Your task to perform on an android device: change the upload size in google photos Image 0: 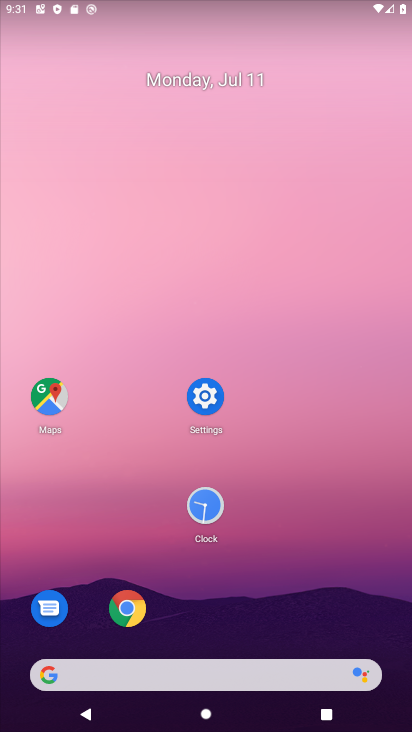
Step 0: drag from (393, 683) to (354, 112)
Your task to perform on an android device: change the upload size in google photos Image 1: 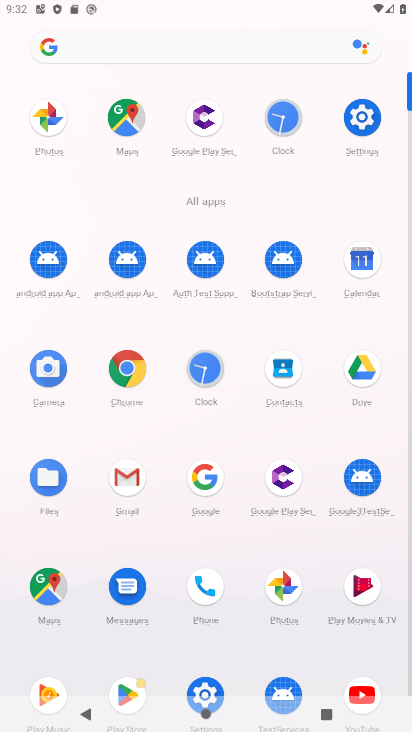
Step 1: click (272, 586)
Your task to perform on an android device: change the upload size in google photos Image 2: 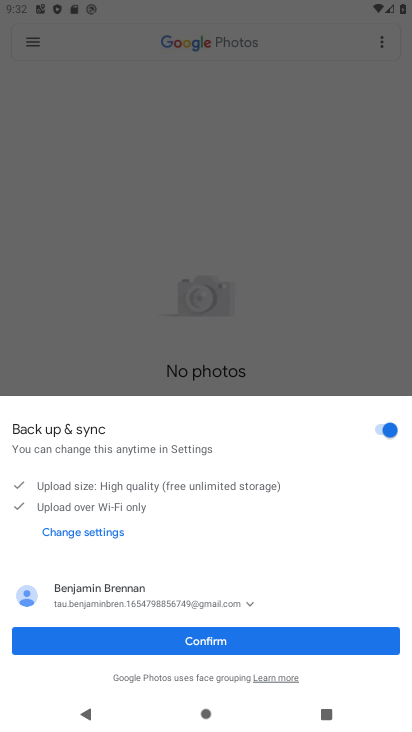
Step 2: click (103, 636)
Your task to perform on an android device: change the upload size in google photos Image 3: 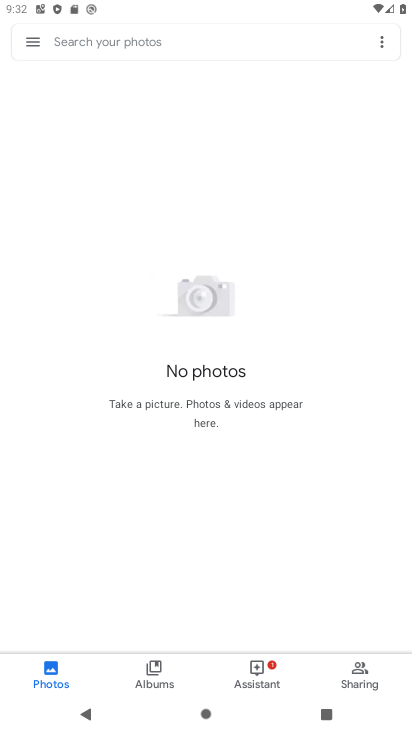
Step 3: click (42, 676)
Your task to perform on an android device: change the upload size in google photos Image 4: 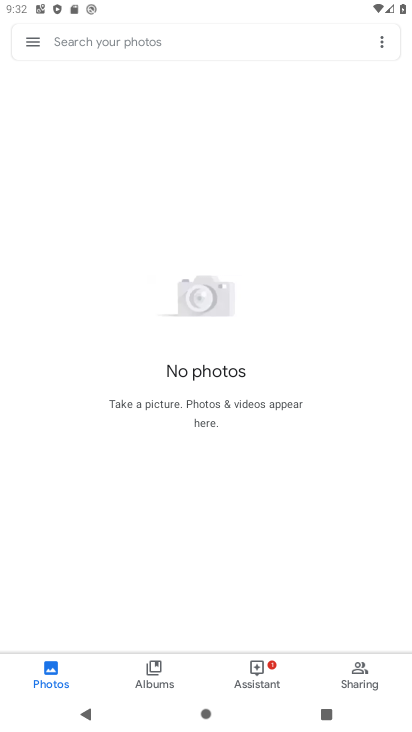
Step 4: click (29, 41)
Your task to perform on an android device: change the upload size in google photos Image 5: 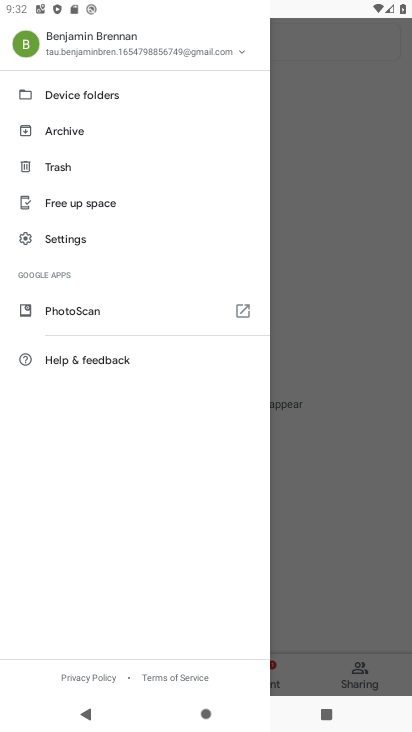
Step 5: click (59, 231)
Your task to perform on an android device: change the upload size in google photos Image 6: 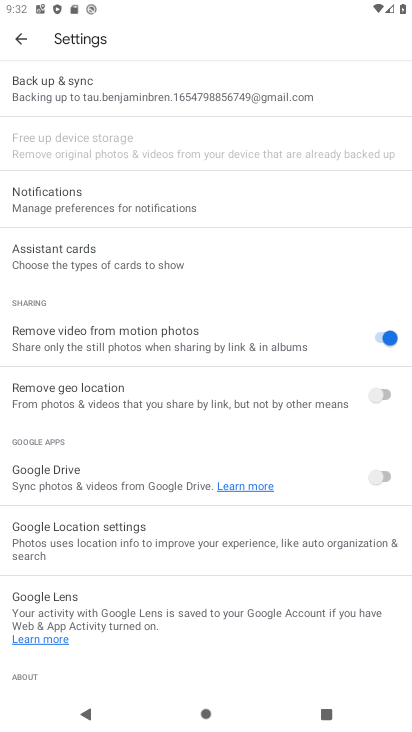
Step 6: click (83, 80)
Your task to perform on an android device: change the upload size in google photos Image 7: 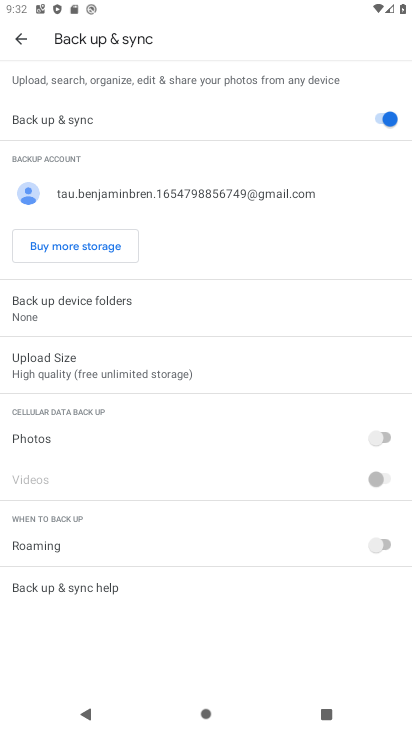
Step 7: click (57, 369)
Your task to perform on an android device: change the upload size in google photos Image 8: 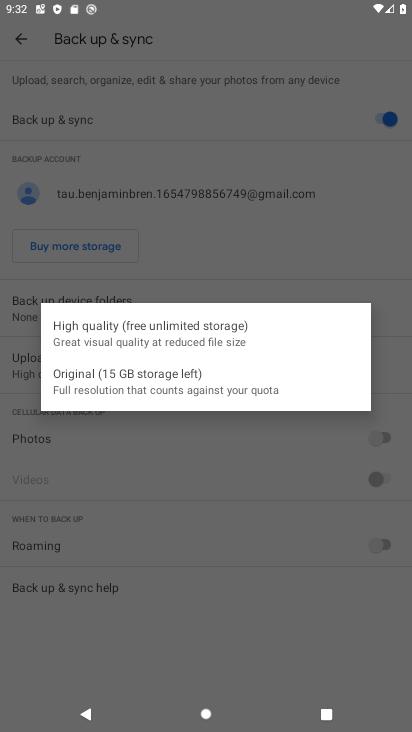
Step 8: click (97, 379)
Your task to perform on an android device: change the upload size in google photos Image 9: 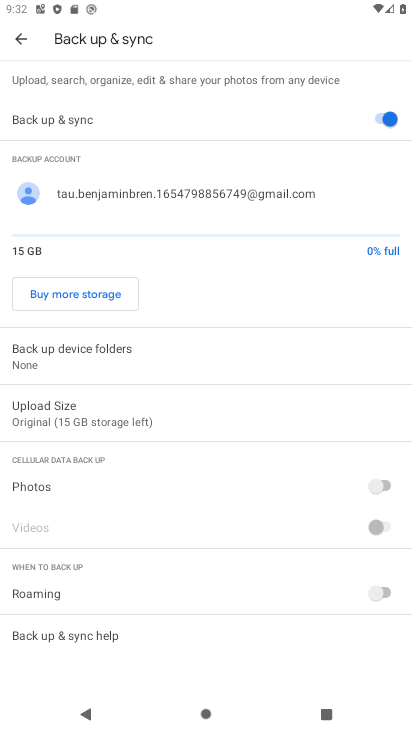
Step 9: task complete